Your task to perform on an android device: Go to Yahoo.com Image 0: 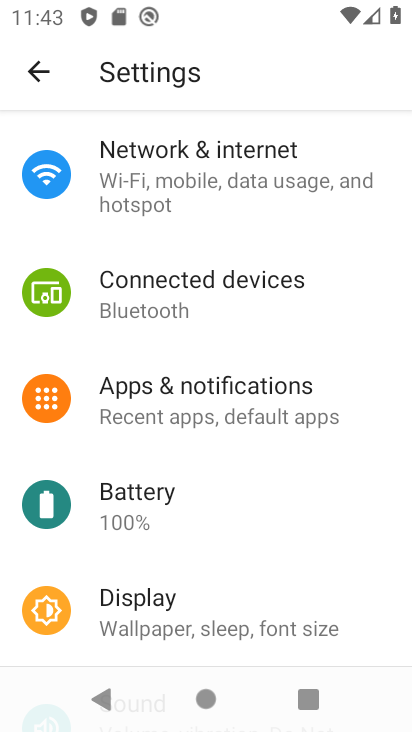
Step 0: press home button
Your task to perform on an android device: Go to Yahoo.com Image 1: 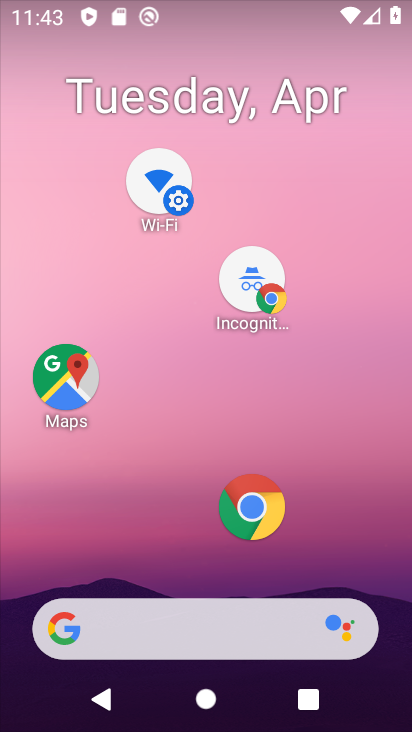
Step 1: click (263, 511)
Your task to perform on an android device: Go to Yahoo.com Image 2: 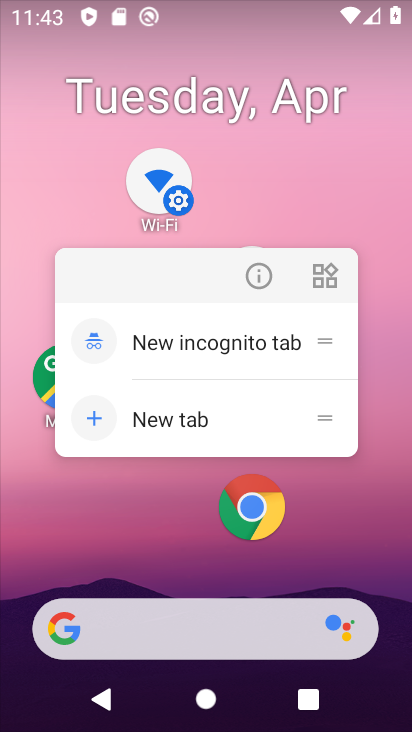
Step 2: click (265, 498)
Your task to perform on an android device: Go to Yahoo.com Image 3: 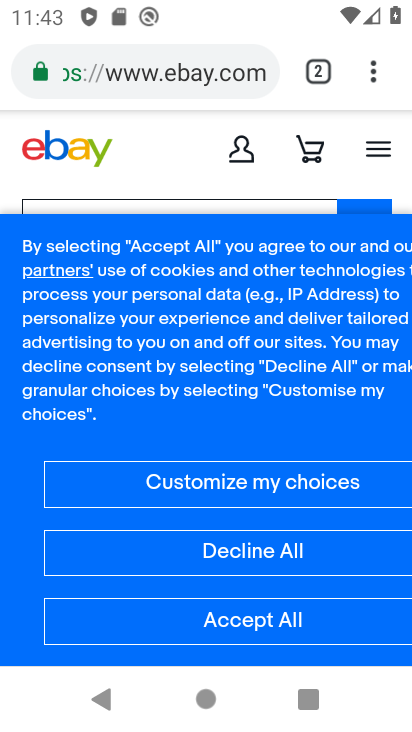
Step 3: press back button
Your task to perform on an android device: Go to Yahoo.com Image 4: 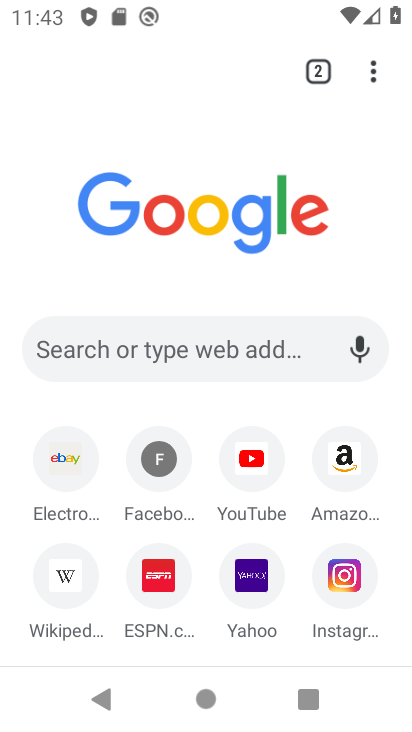
Step 4: click (270, 582)
Your task to perform on an android device: Go to Yahoo.com Image 5: 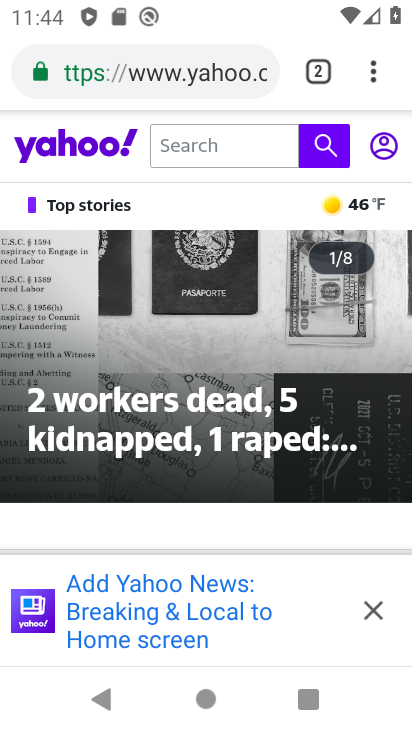
Step 5: task complete